Your task to perform on an android device: Go to Reddit.com Image 0: 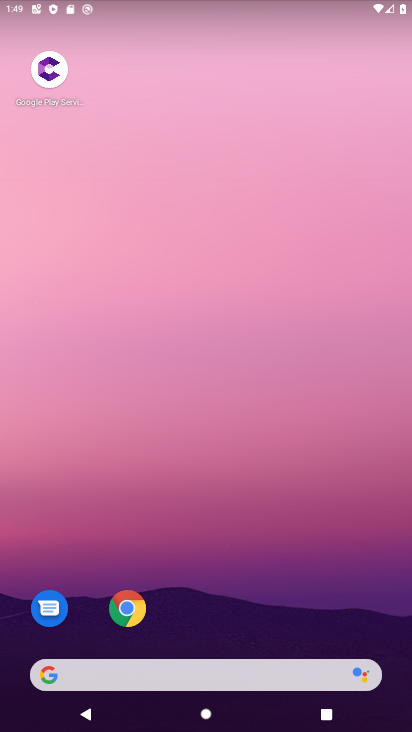
Step 0: drag from (227, 469) to (233, 330)
Your task to perform on an android device: Go to Reddit.com Image 1: 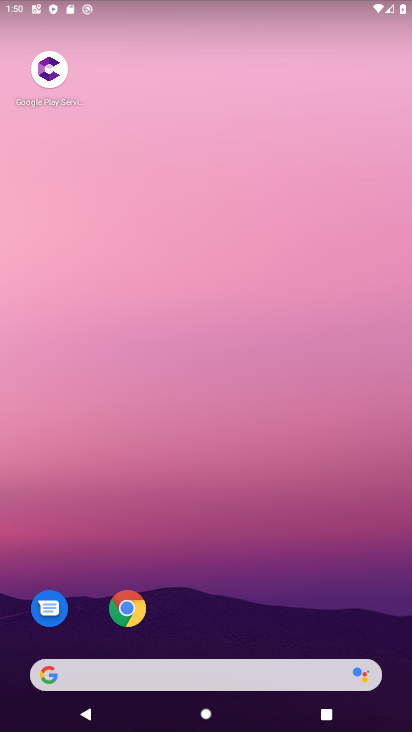
Step 1: drag from (172, 600) to (287, 203)
Your task to perform on an android device: Go to Reddit.com Image 2: 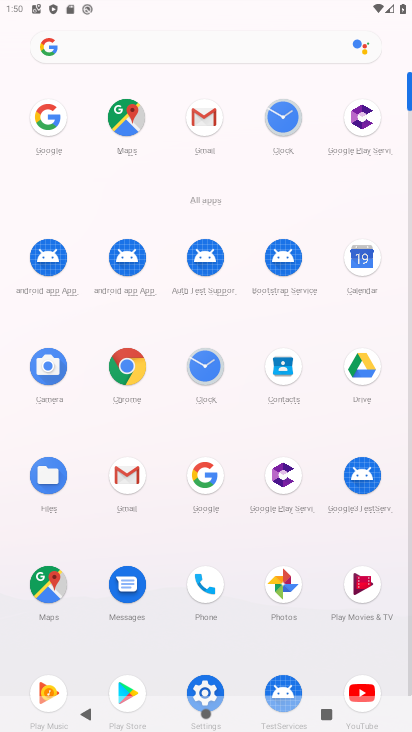
Step 2: click (207, 481)
Your task to perform on an android device: Go to Reddit.com Image 3: 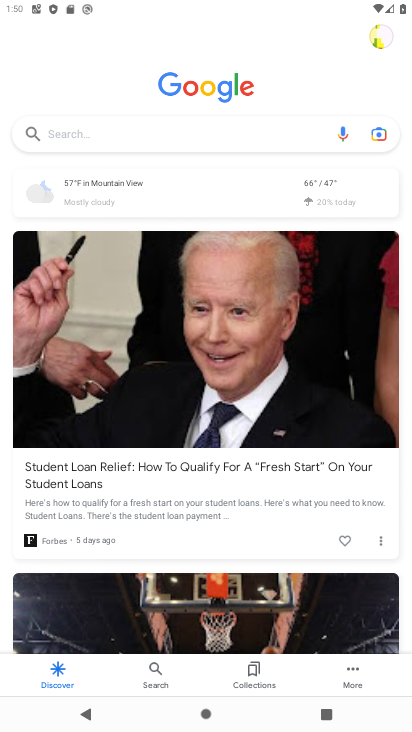
Step 3: click (72, 133)
Your task to perform on an android device: Go to Reddit.com Image 4: 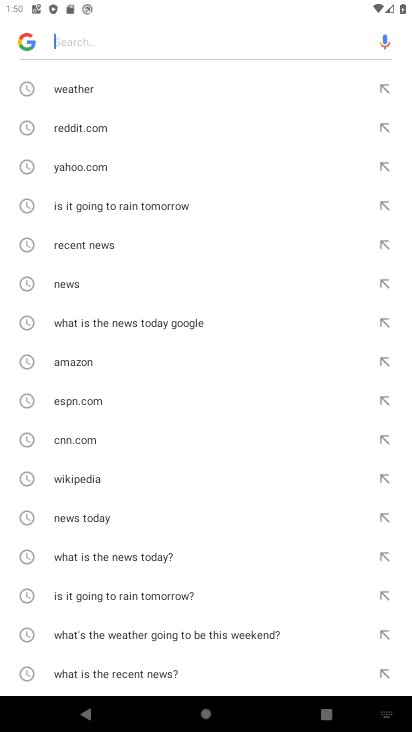
Step 4: click (77, 121)
Your task to perform on an android device: Go to Reddit.com Image 5: 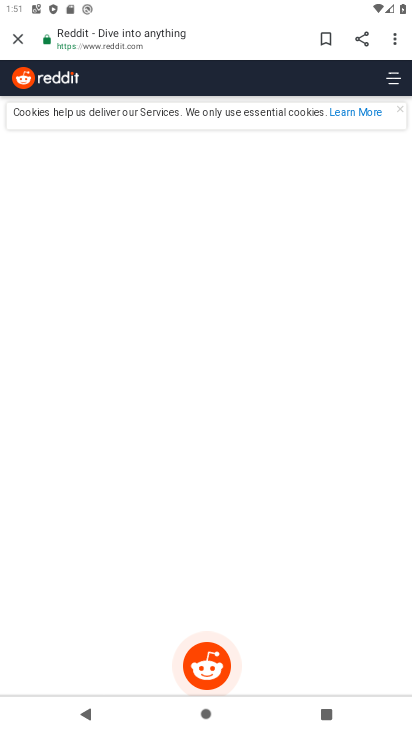
Step 5: task complete